Your task to perform on an android device: turn off location Image 0: 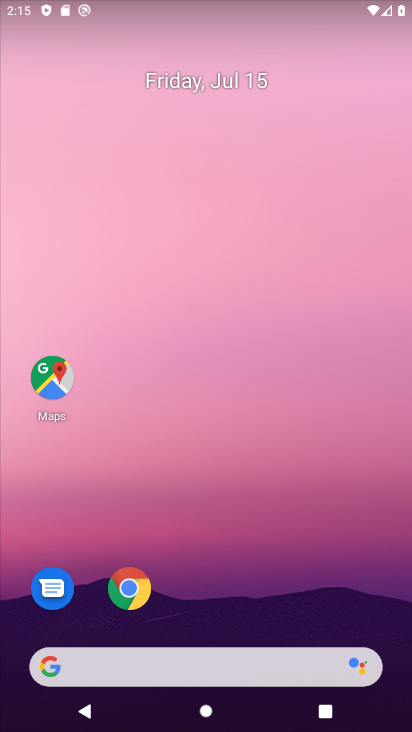
Step 0: drag from (248, 546) to (177, 29)
Your task to perform on an android device: turn off location Image 1: 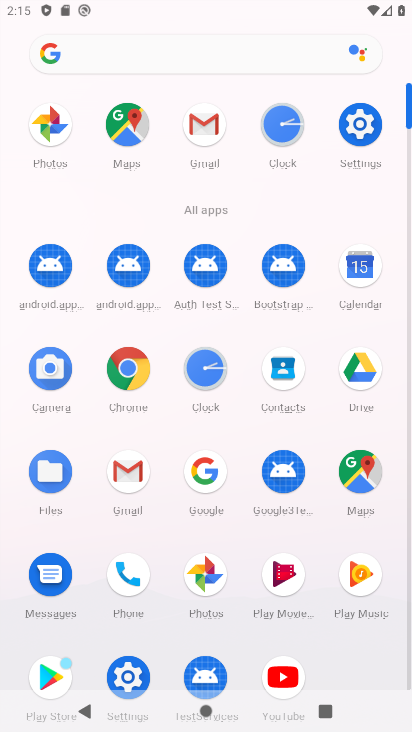
Step 1: click (363, 121)
Your task to perform on an android device: turn off location Image 2: 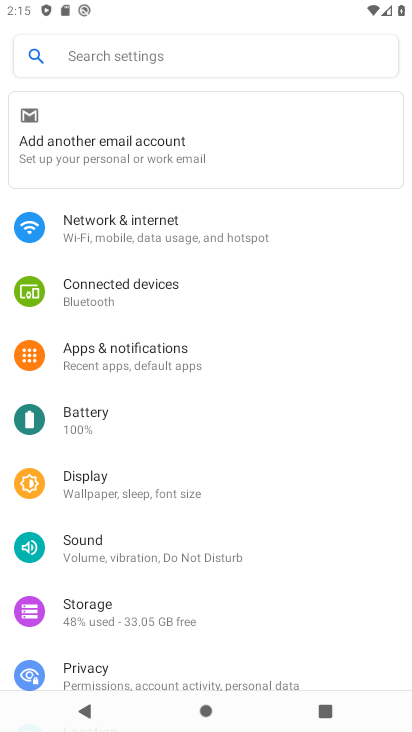
Step 2: drag from (275, 600) to (253, 257)
Your task to perform on an android device: turn off location Image 3: 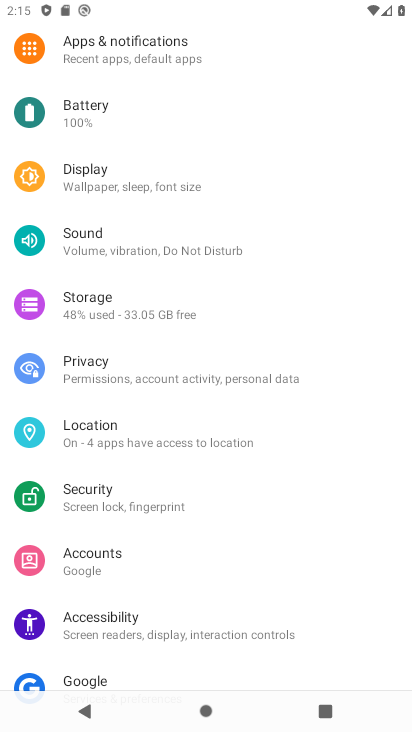
Step 3: click (85, 431)
Your task to perform on an android device: turn off location Image 4: 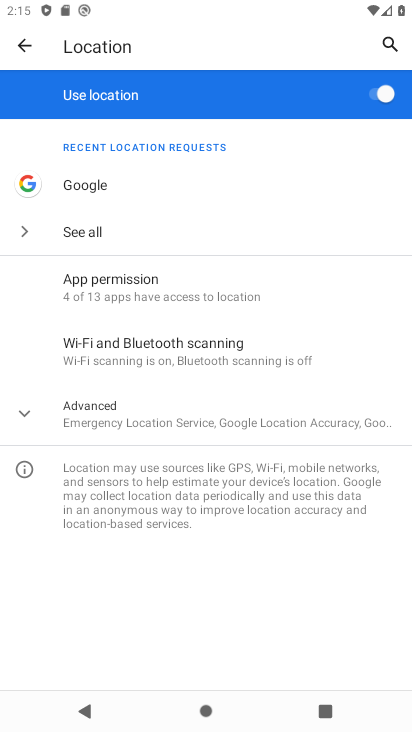
Step 4: click (383, 95)
Your task to perform on an android device: turn off location Image 5: 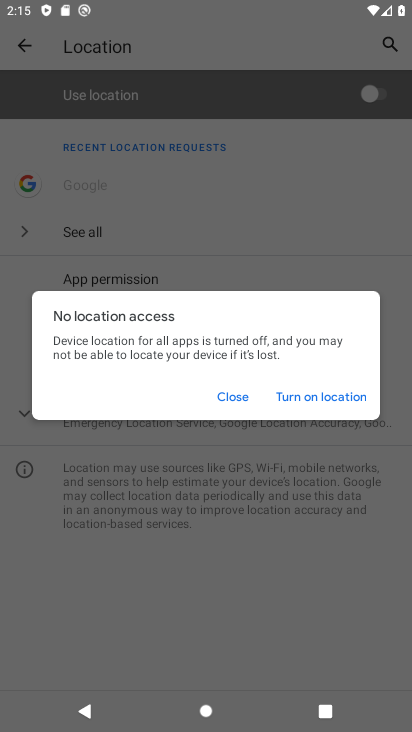
Step 5: click (236, 397)
Your task to perform on an android device: turn off location Image 6: 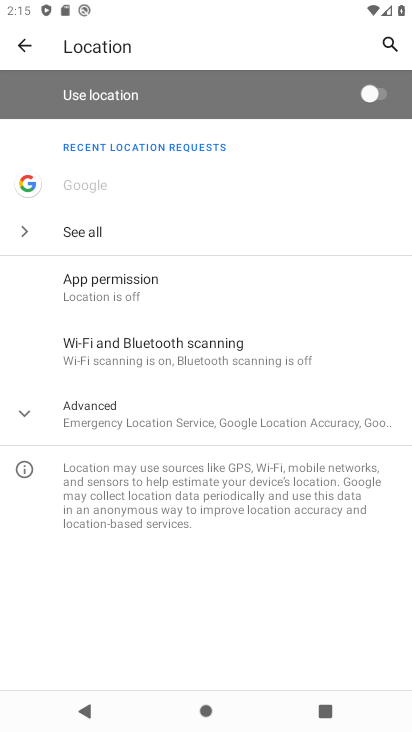
Step 6: task complete